Your task to perform on an android device: move an email to a new category in the gmail app Image 0: 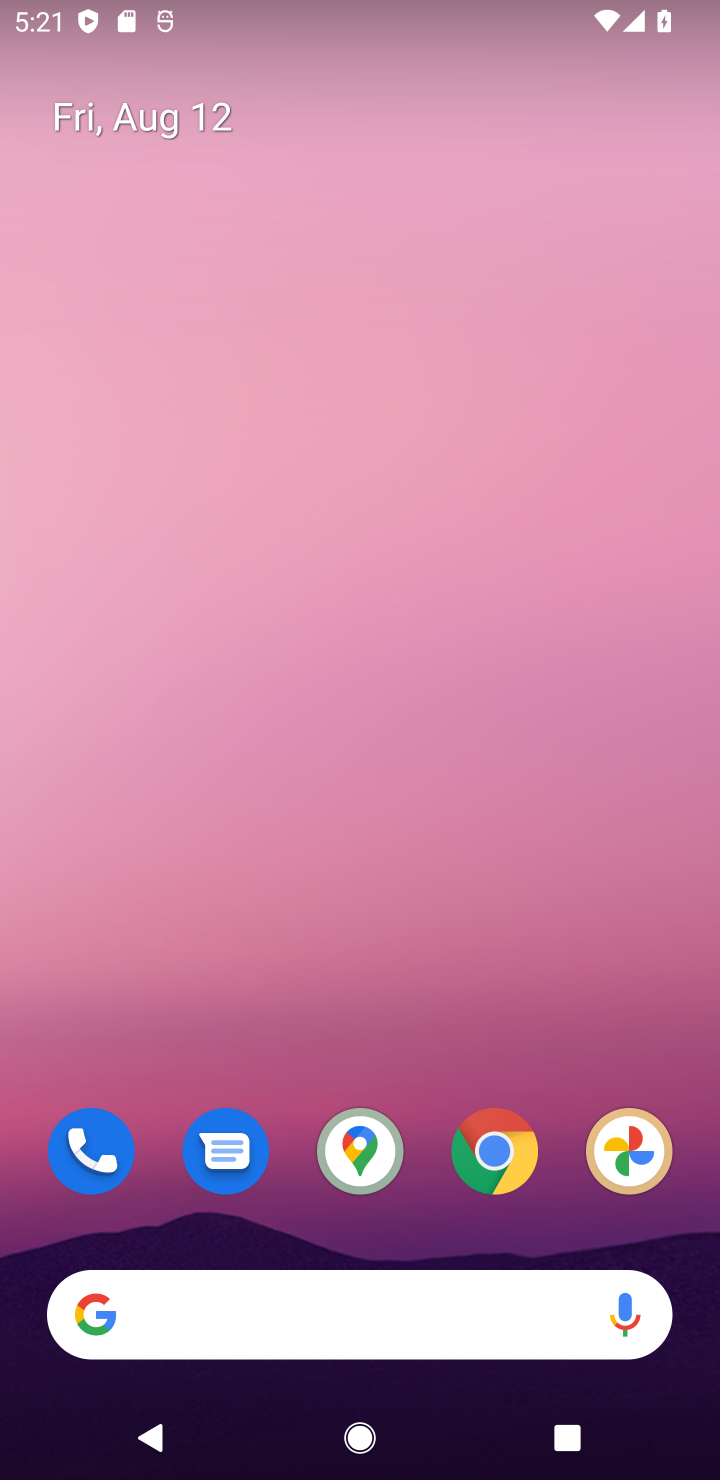
Step 0: drag from (485, 1015) to (632, 78)
Your task to perform on an android device: move an email to a new category in the gmail app Image 1: 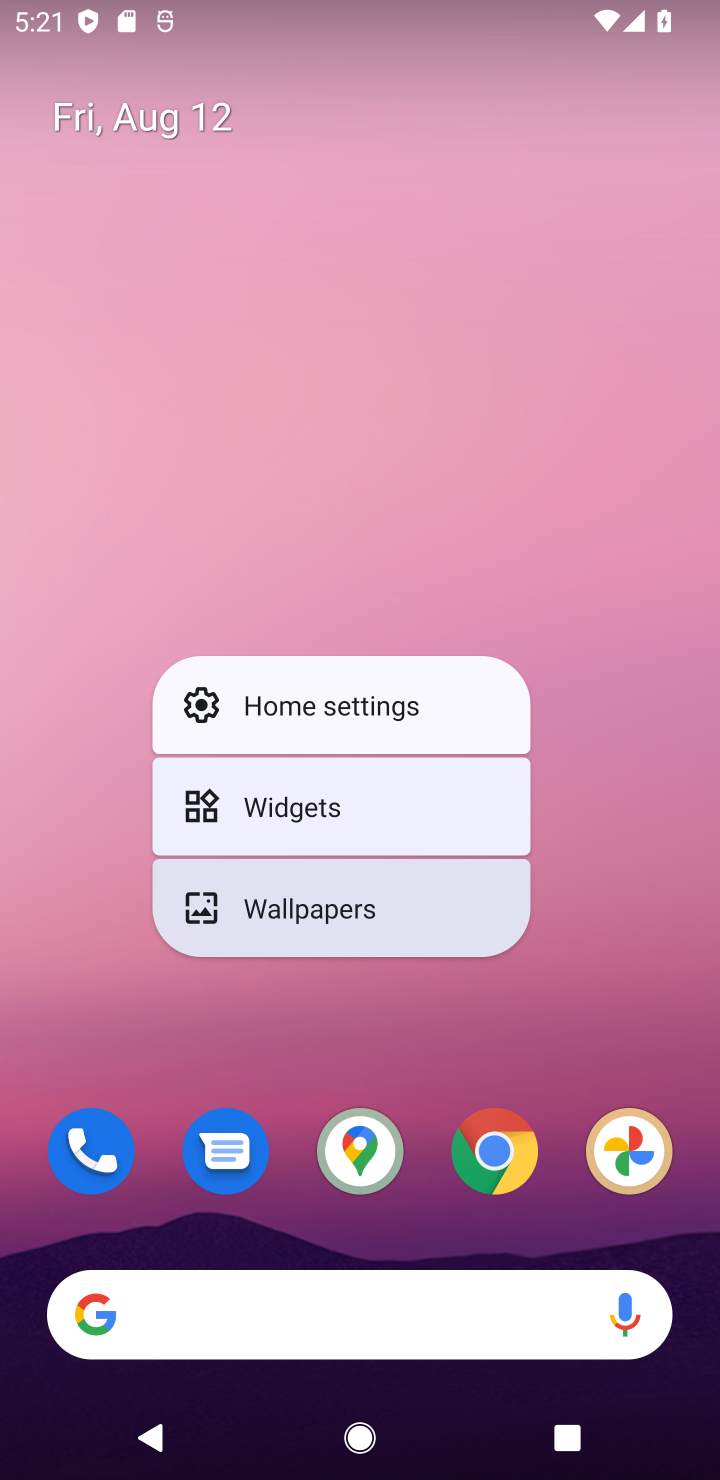
Step 1: click (647, 488)
Your task to perform on an android device: move an email to a new category in the gmail app Image 2: 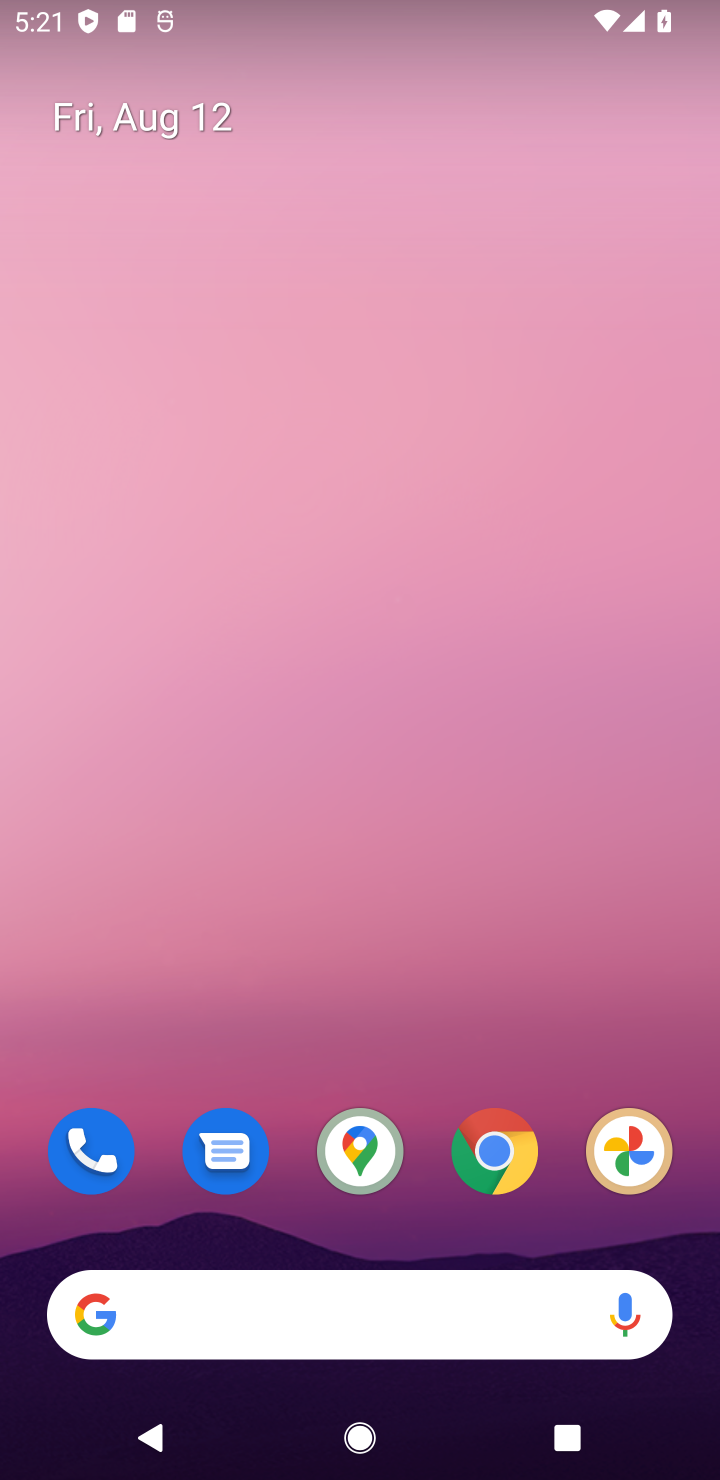
Step 2: drag from (575, 1228) to (587, 138)
Your task to perform on an android device: move an email to a new category in the gmail app Image 3: 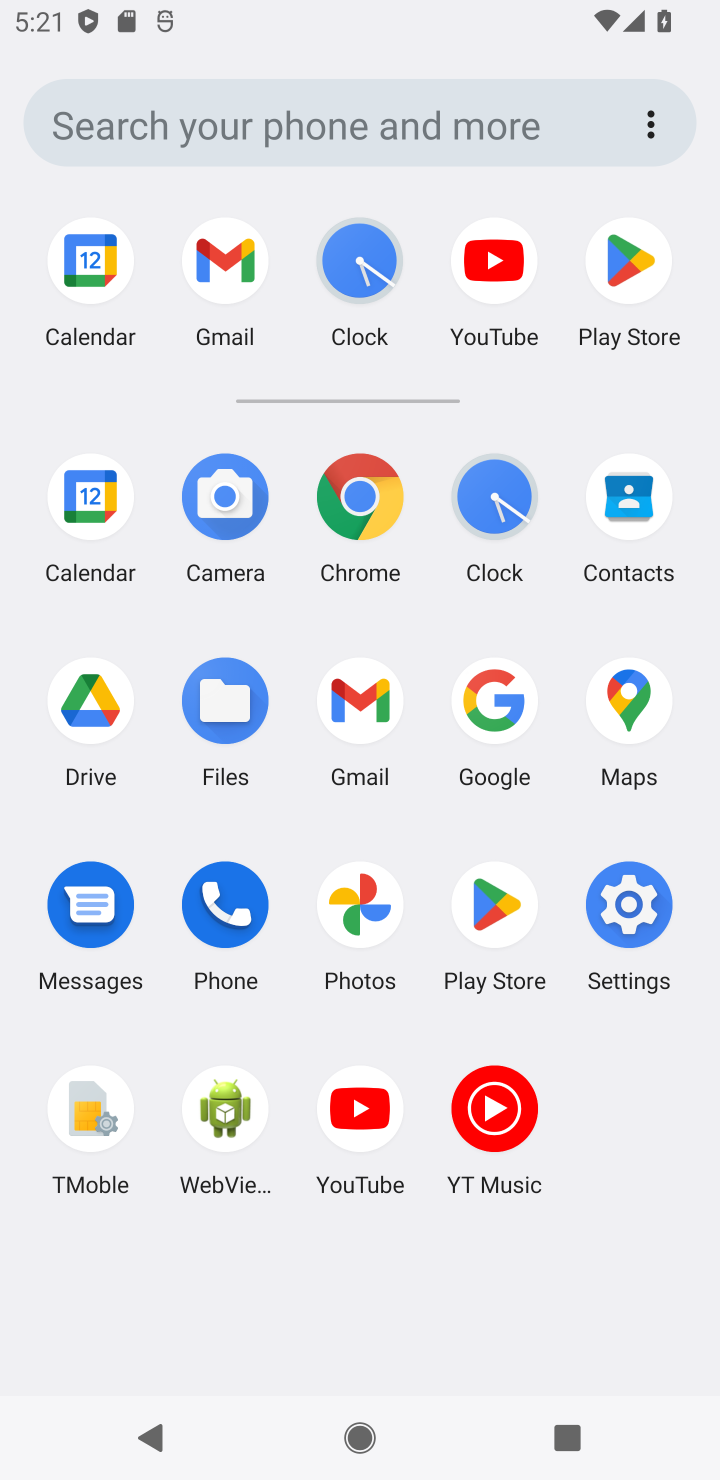
Step 3: click (346, 725)
Your task to perform on an android device: move an email to a new category in the gmail app Image 4: 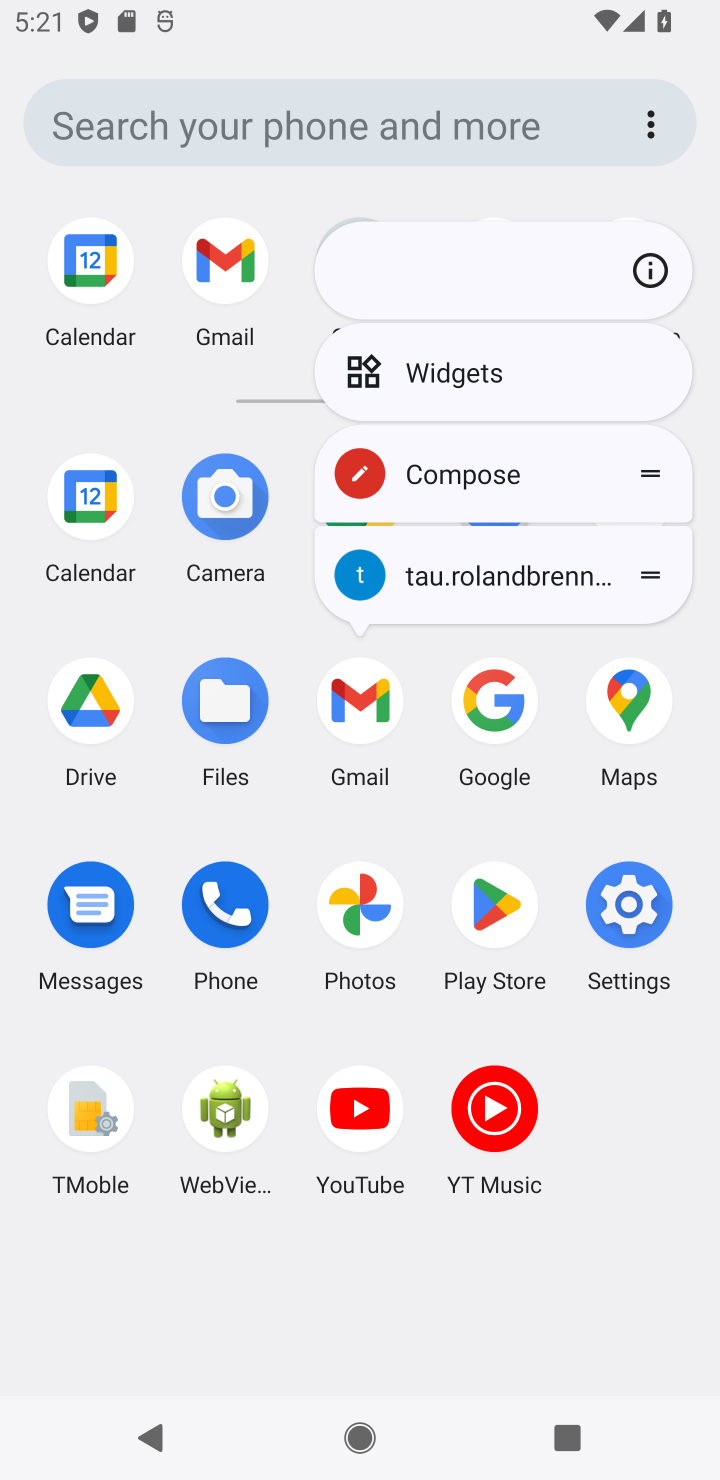
Step 4: click (346, 714)
Your task to perform on an android device: move an email to a new category in the gmail app Image 5: 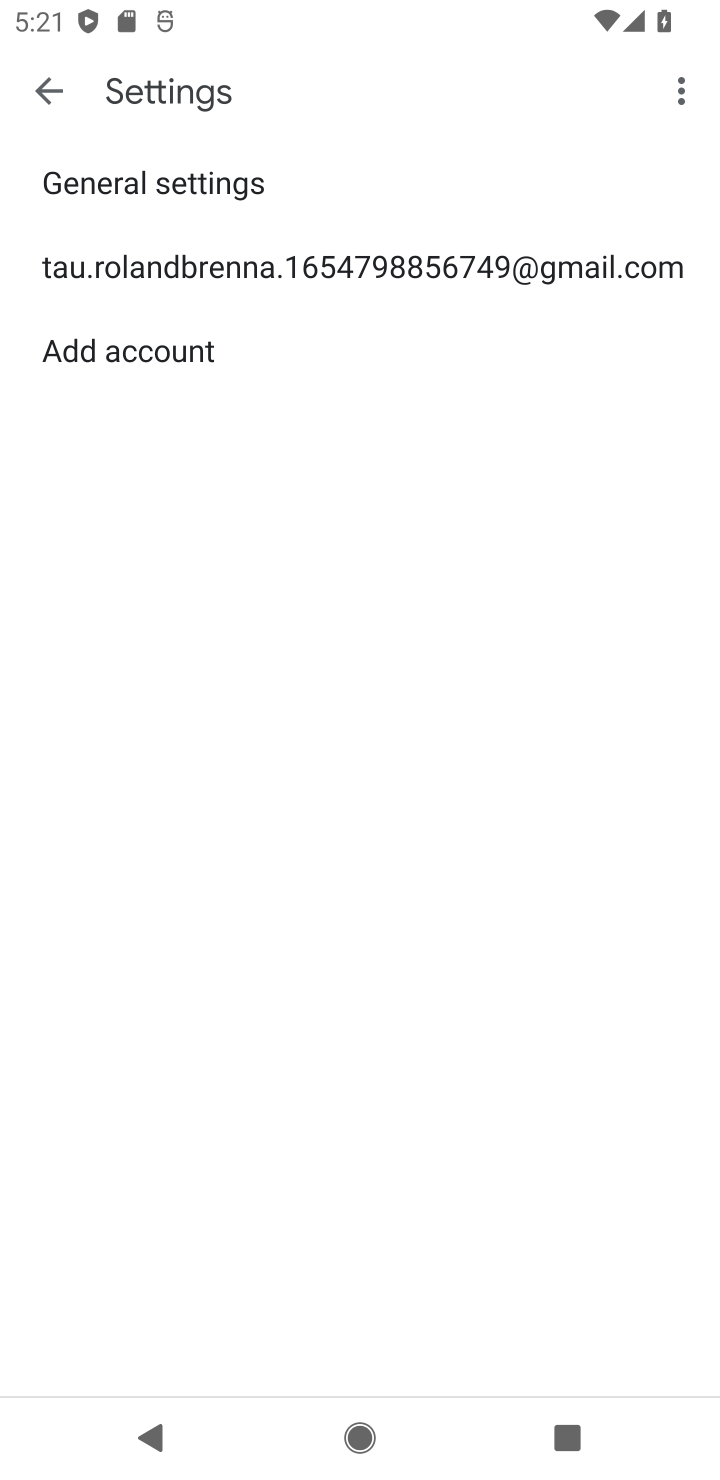
Step 5: press back button
Your task to perform on an android device: move an email to a new category in the gmail app Image 6: 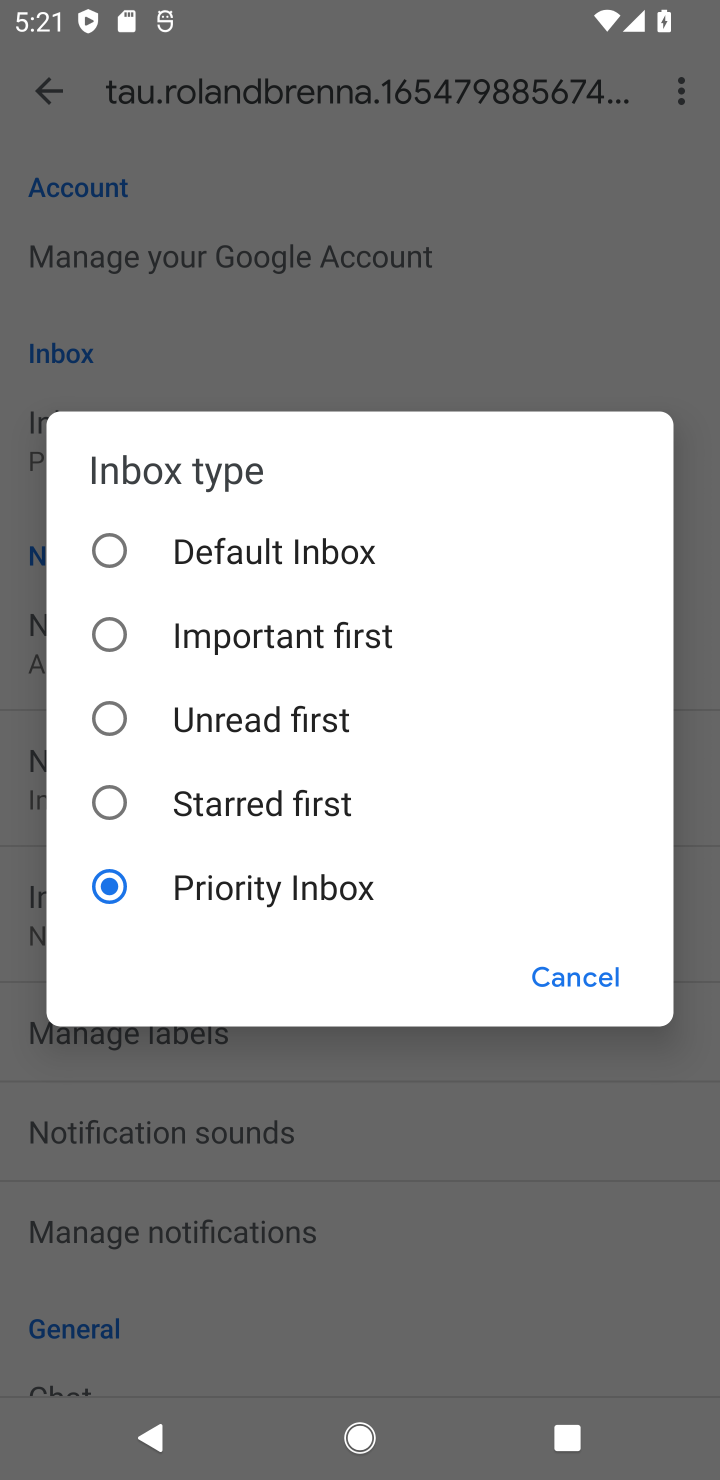
Step 6: press back button
Your task to perform on an android device: move an email to a new category in the gmail app Image 7: 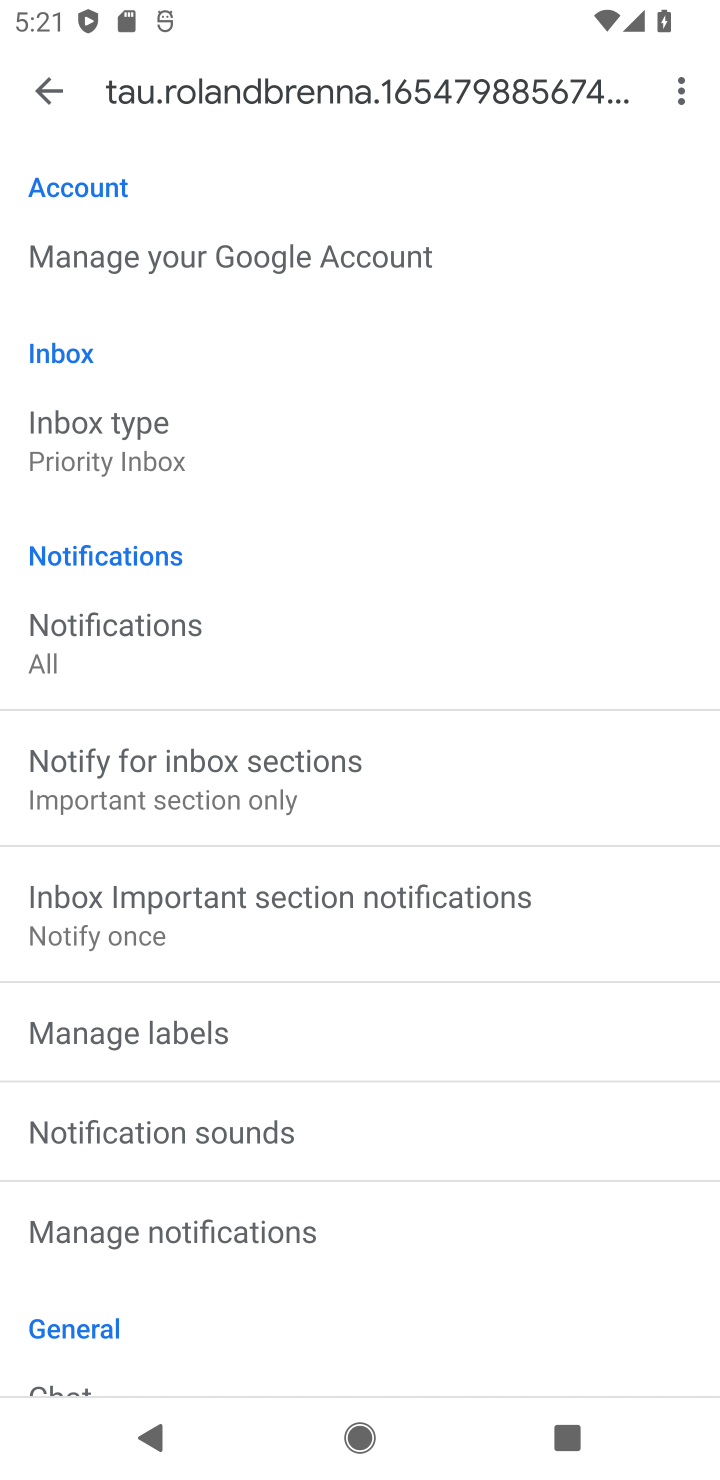
Step 7: press back button
Your task to perform on an android device: move an email to a new category in the gmail app Image 8: 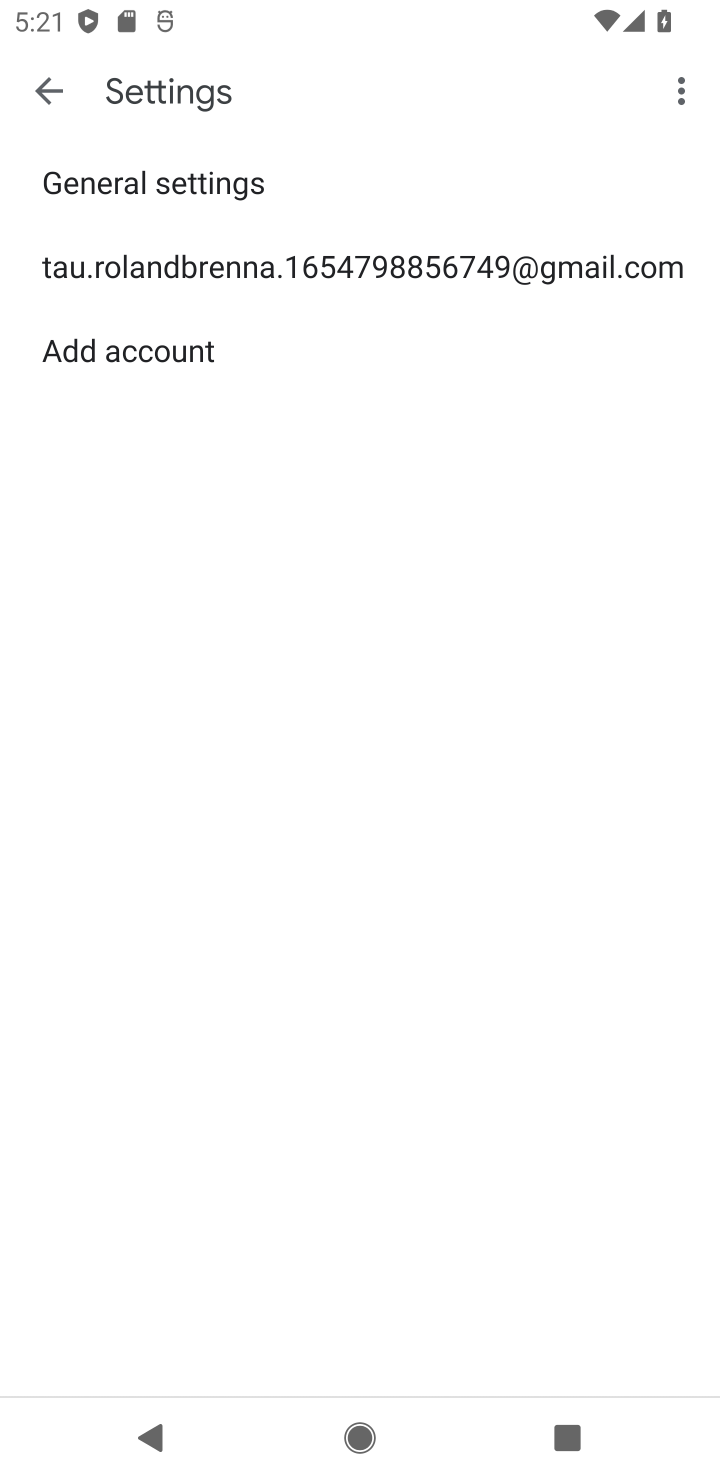
Step 8: press back button
Your task to perform on an android device: move an email to a new category in the gmail app Image 9: 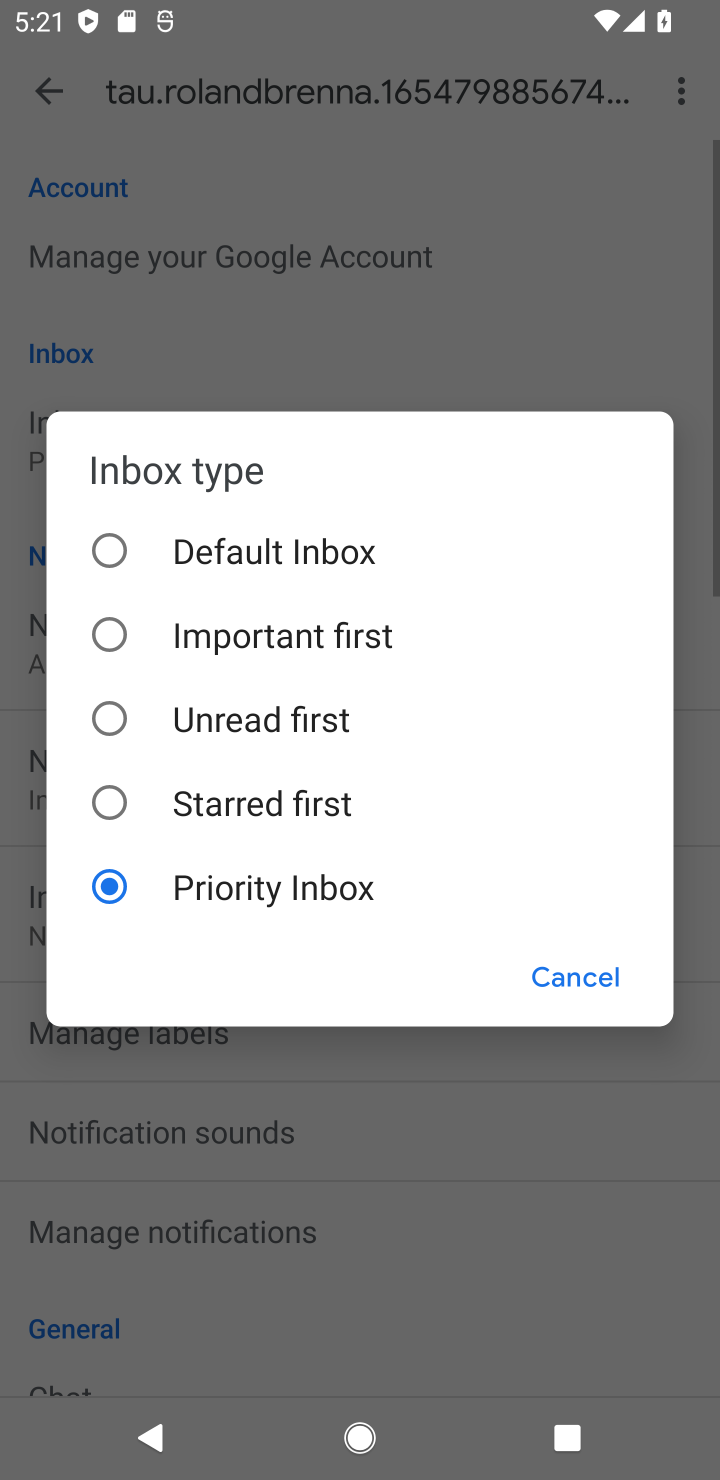
Step 9: press back button
Your task to perform on an android device: move an email to a new category in the gmail app Image 10: 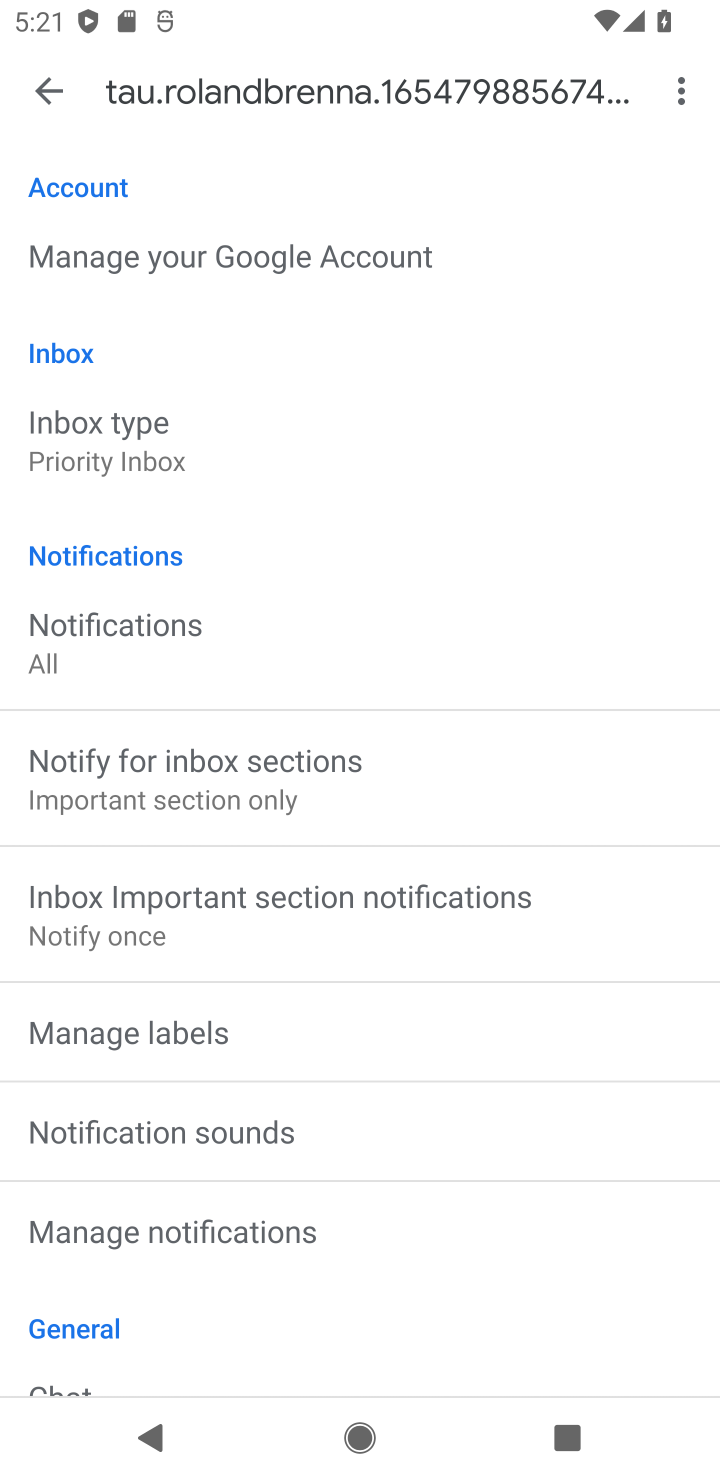
Step 10: press back button
Your task to perform on an android device: move an email to a new category in the gmail app Image 11: 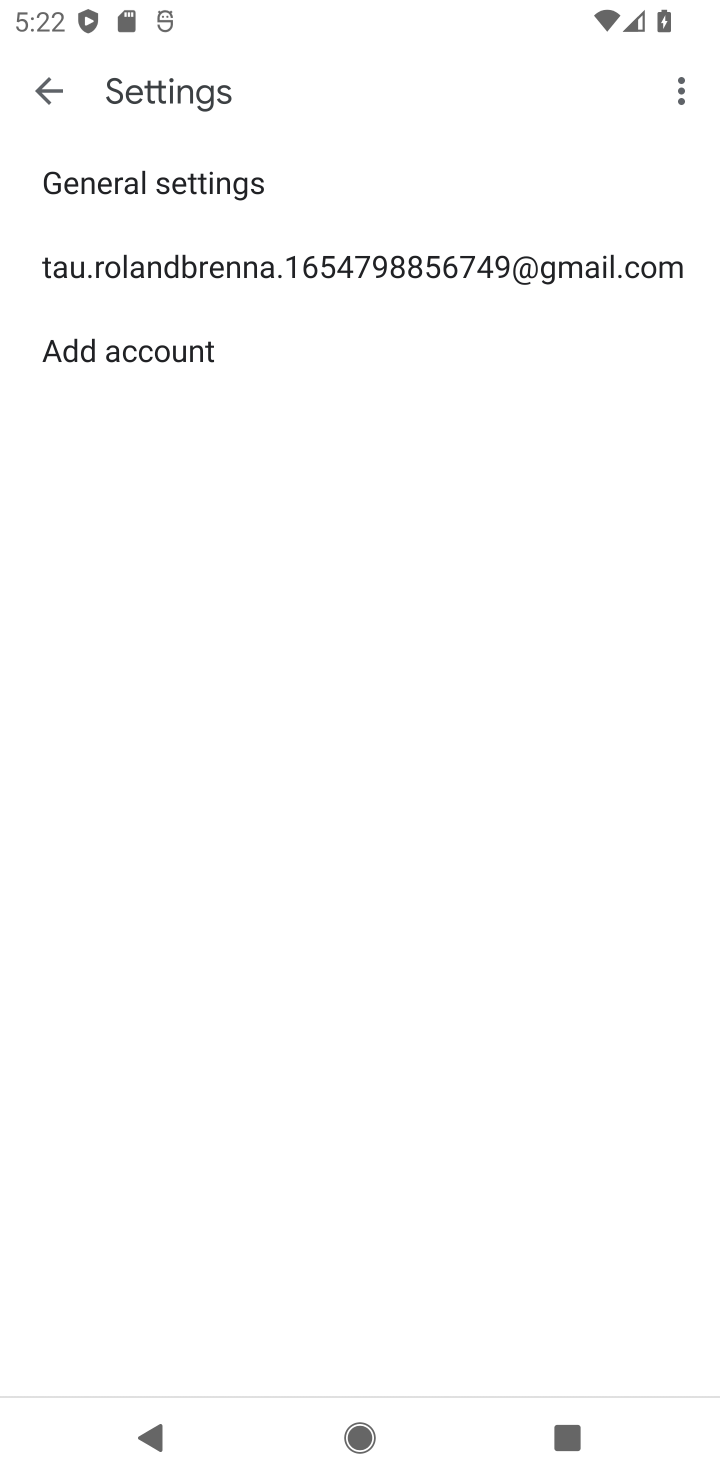
Step 11: press back button
Your task to perform on an android device: move an email to a new category in the gmail app Image 12: 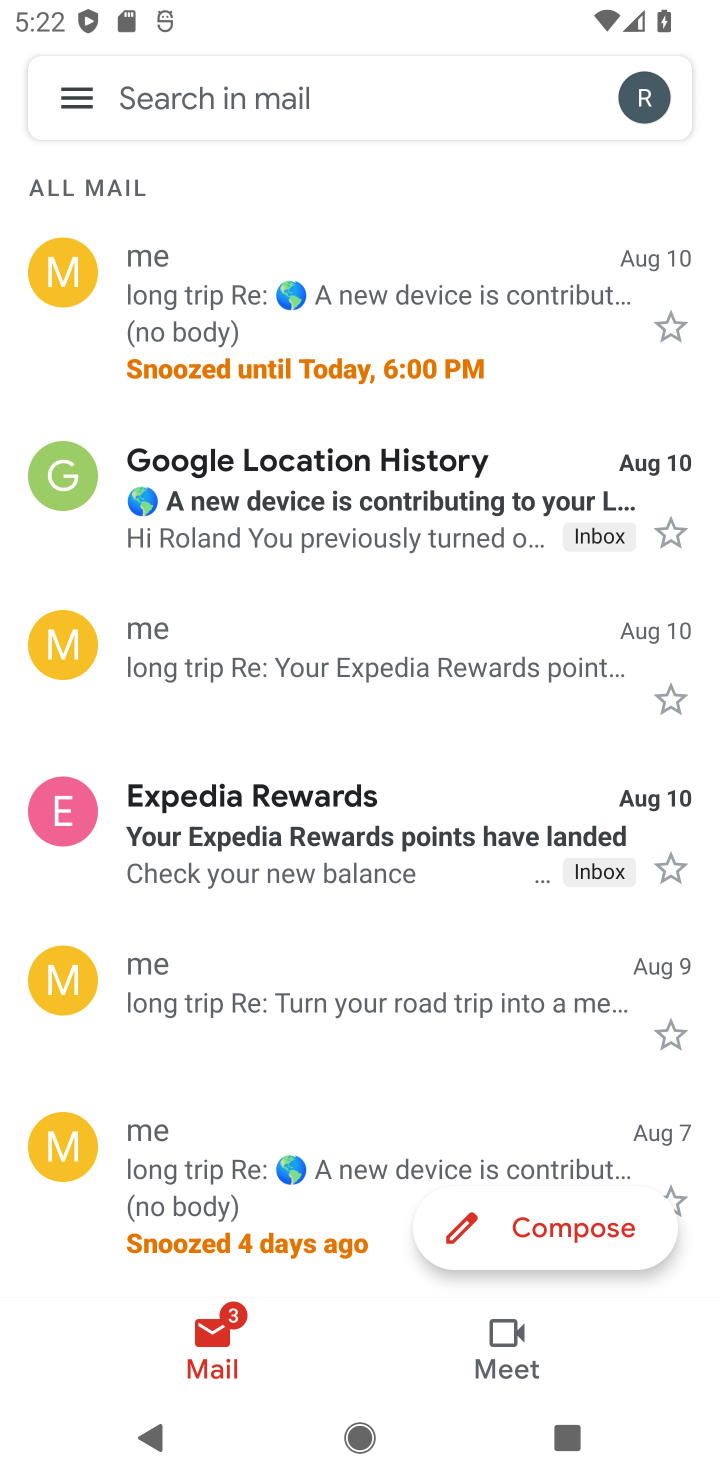
Step 12: click (80, 82)
Your task to perform on an android device: move an email to a new category in the gmail app Image 13: 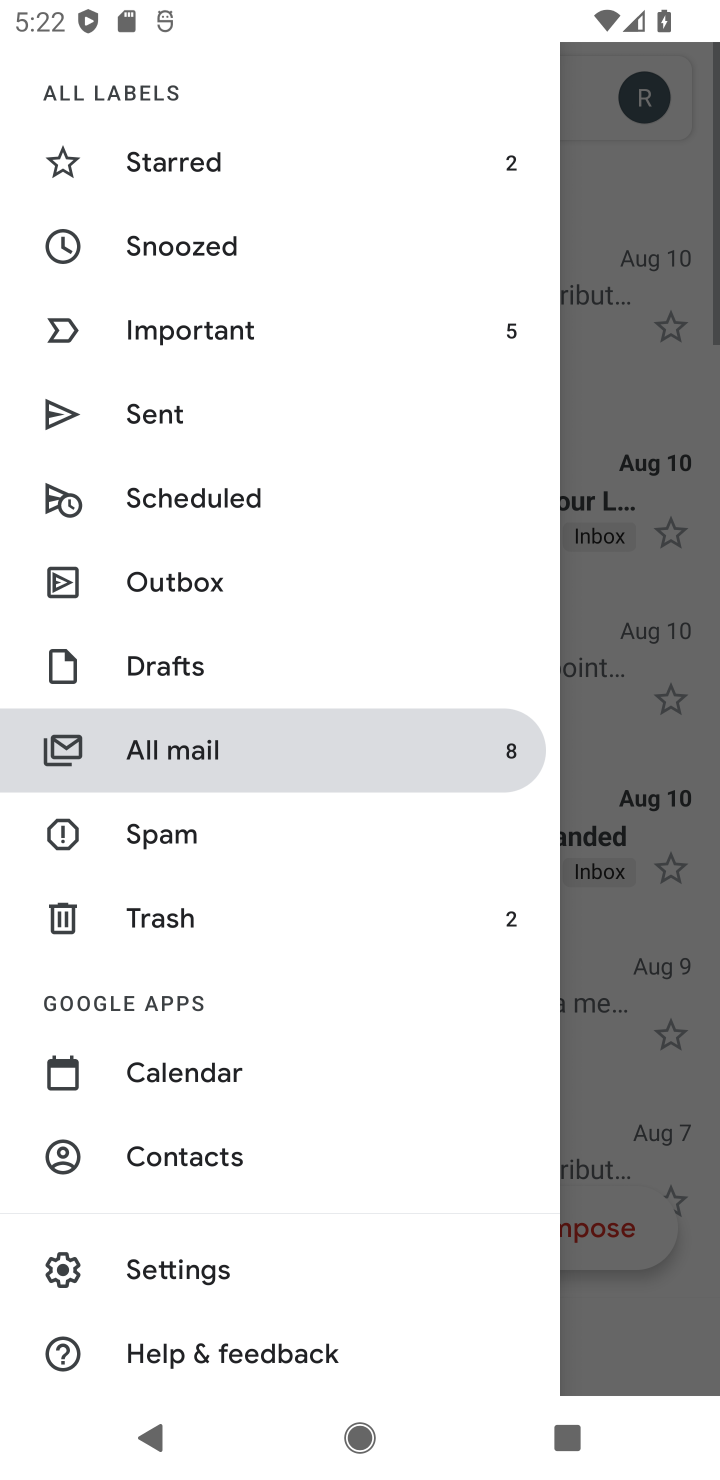
Step 13: click (218, 1249)
Your task to perform on an android device: move an email to a new category in the gmail app Image 14: 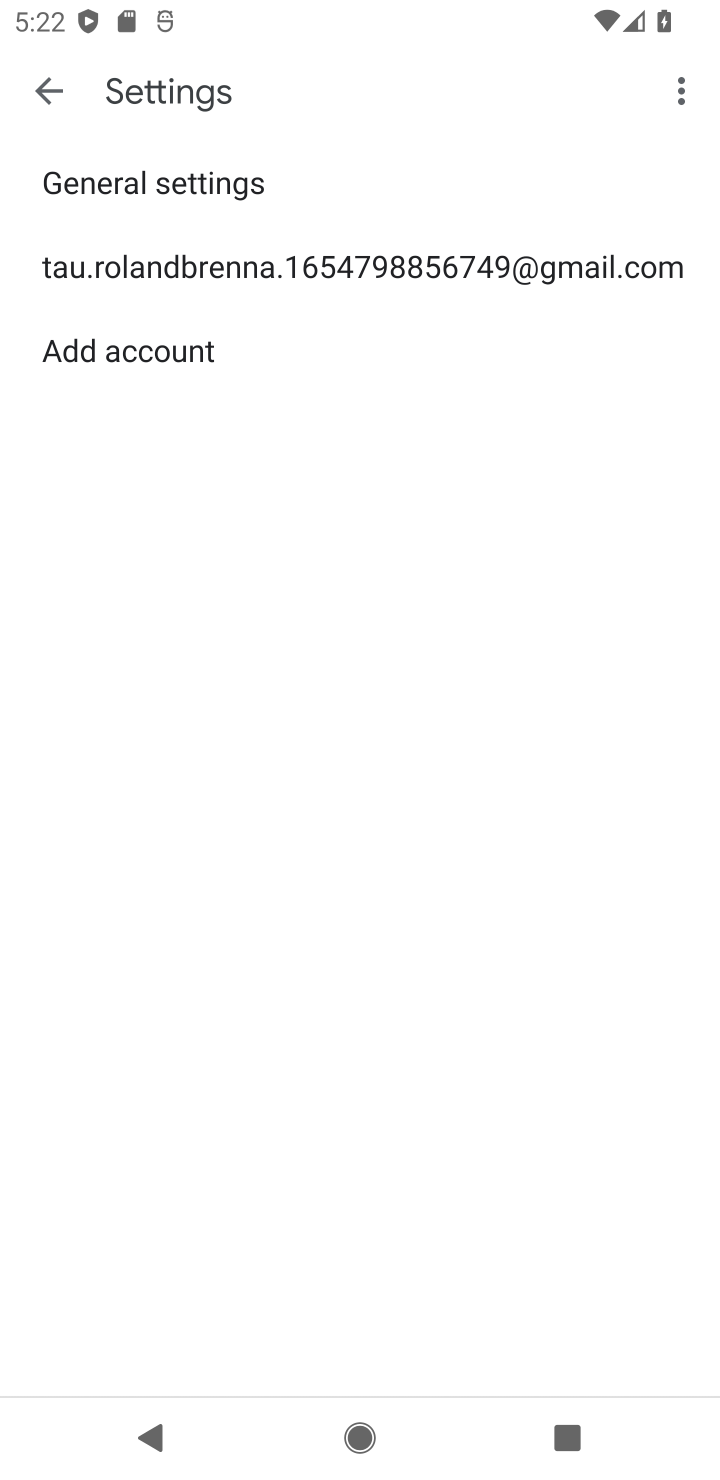
Step 14: click (341, 259)
Your task to perform on an android device: move an email to a new category in the gmail app Image 15: 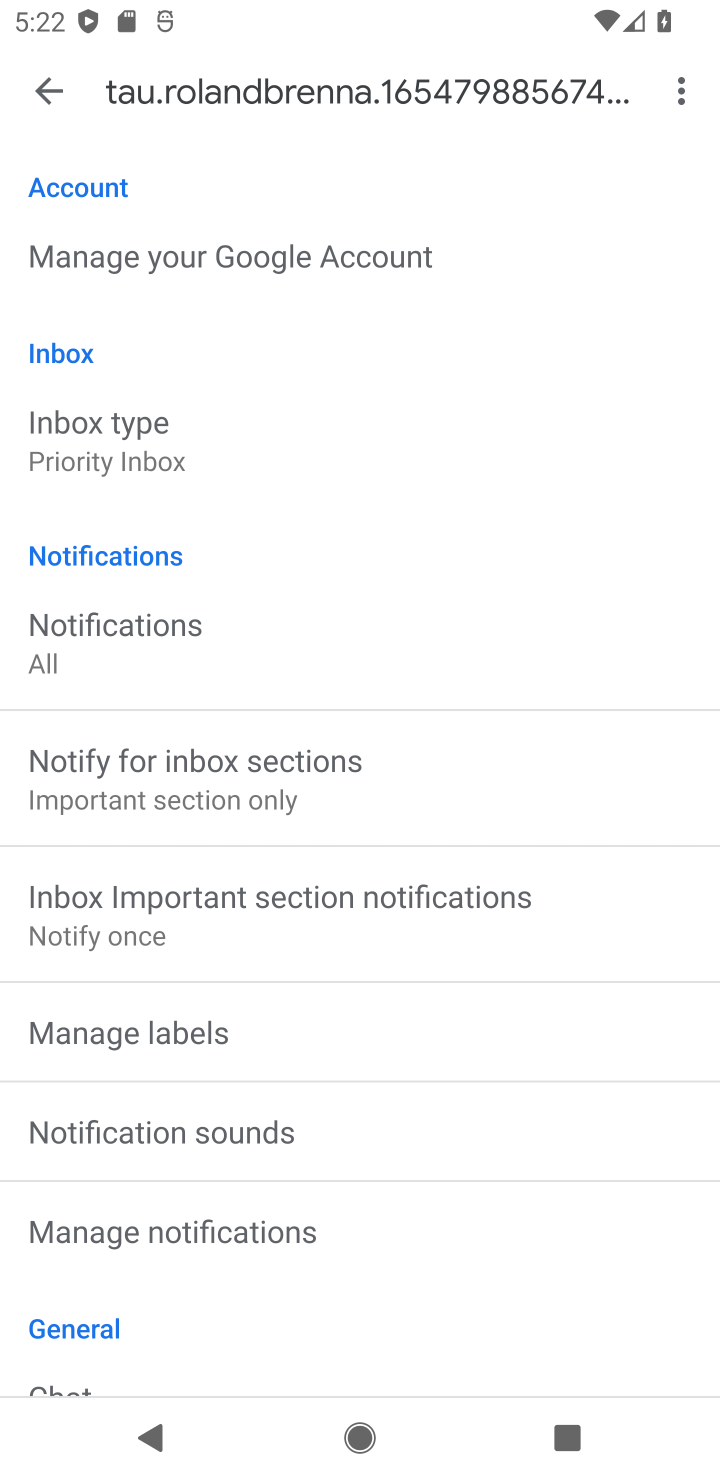
Step 15: drag from (549, 1270) to (465, 1245)
Your task to perform on an android device: move an email to a new category in the gmail app Image 16: 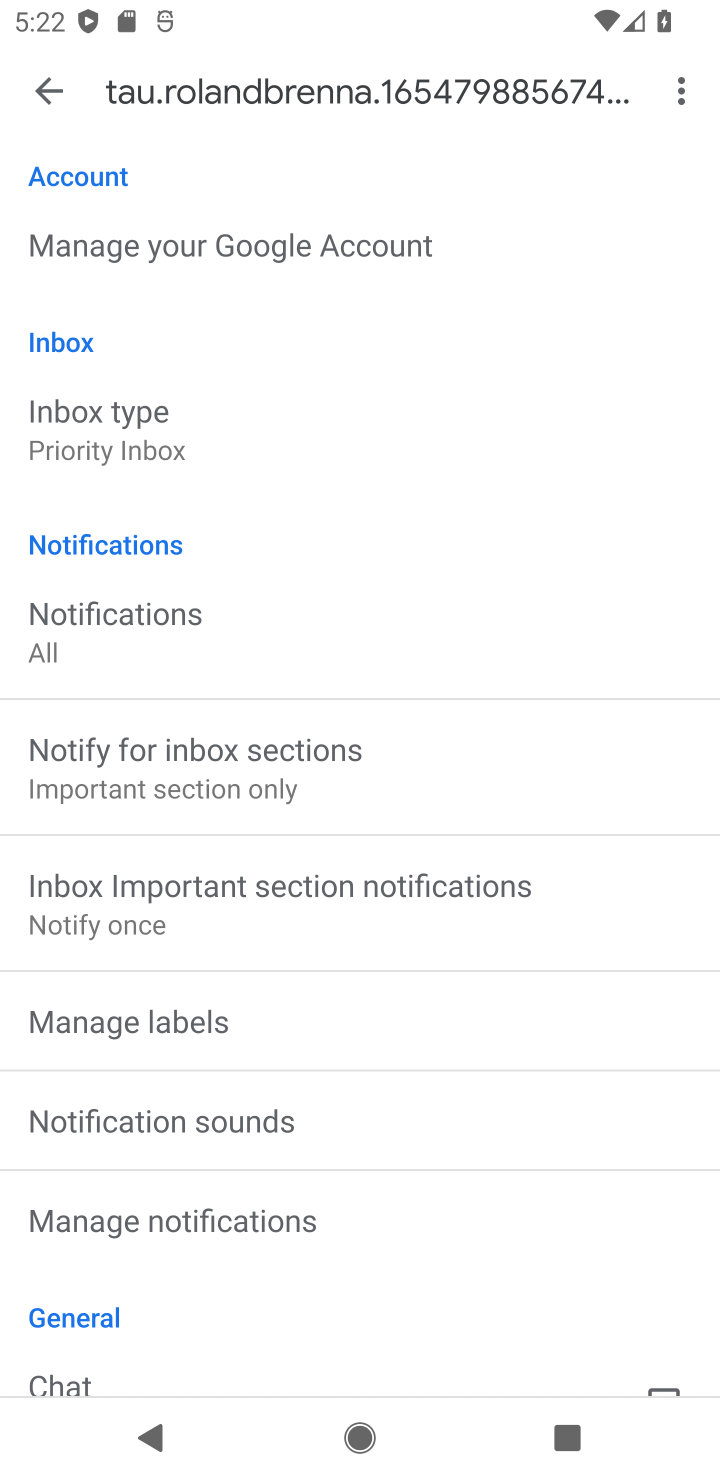
Step 16: click (159, 1019)
Your task to perform on an android device: move an email to a new category in the gmail app Image 17: 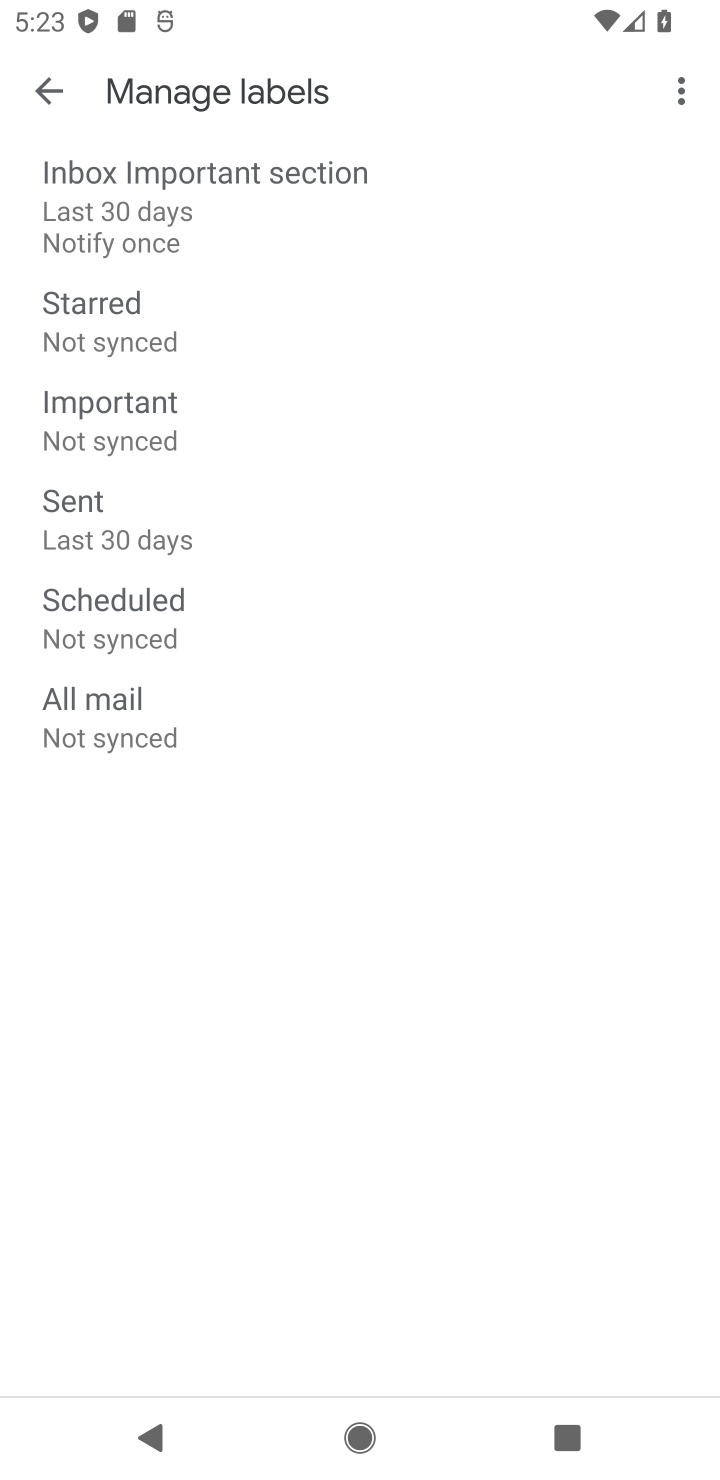
Step 17: click (673, 72)
Your task to perform on an android device: move an email to a new category in the gmail app Image 18: 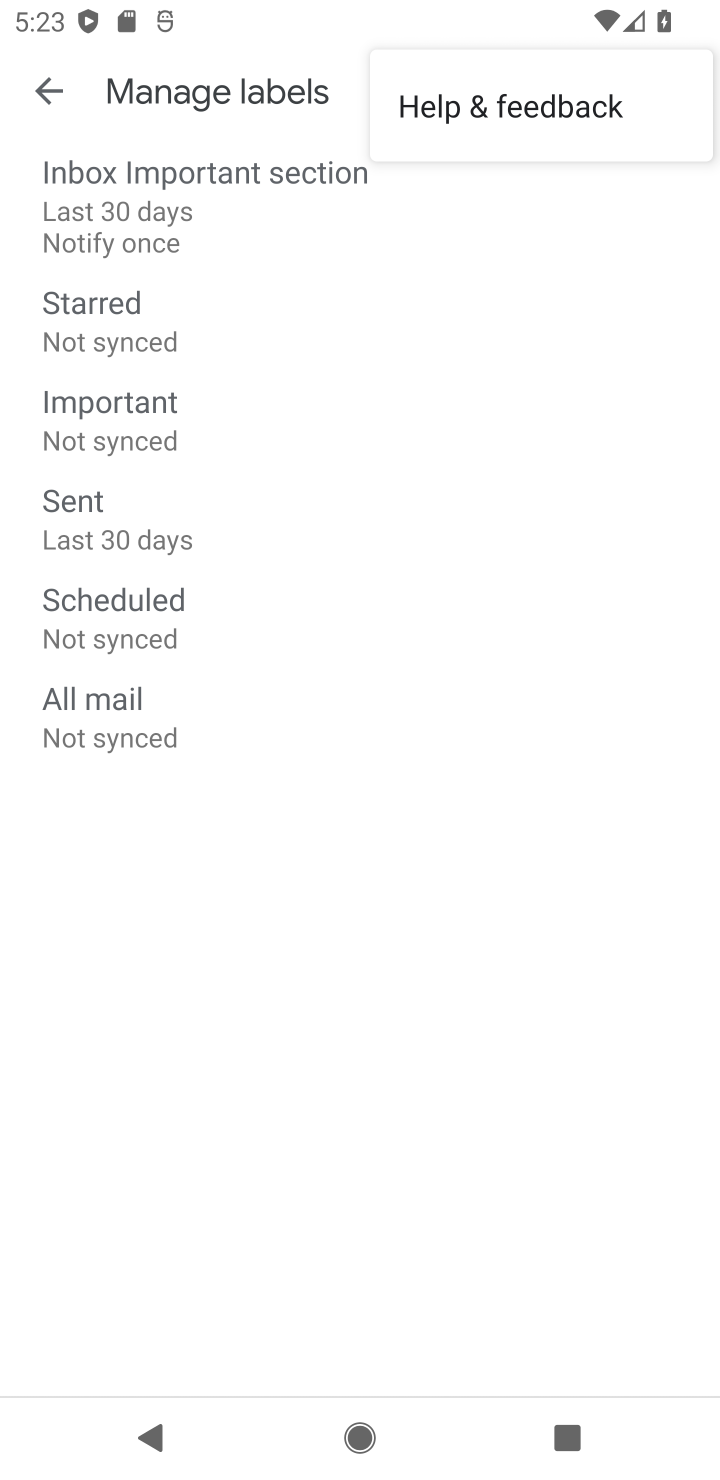
Step 18: task complete